Your task to perform on an android device: Set the phone to "Do not disturb". Image 0: 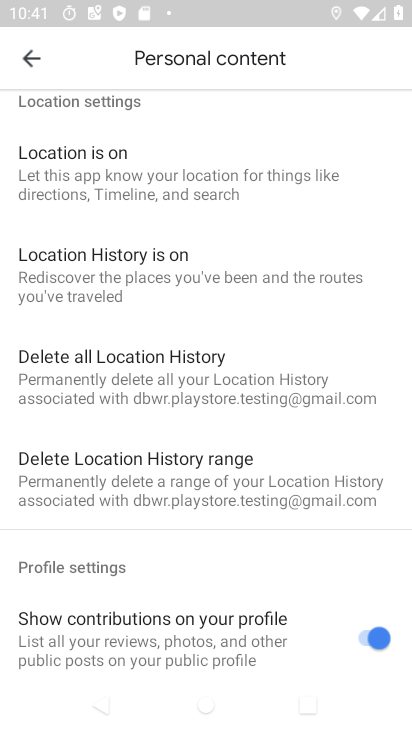
Step 0: drag from (204, 9) to (293, 534)
Your task to perform on an android device: Set the phone to "Do not disturb". Image 1: 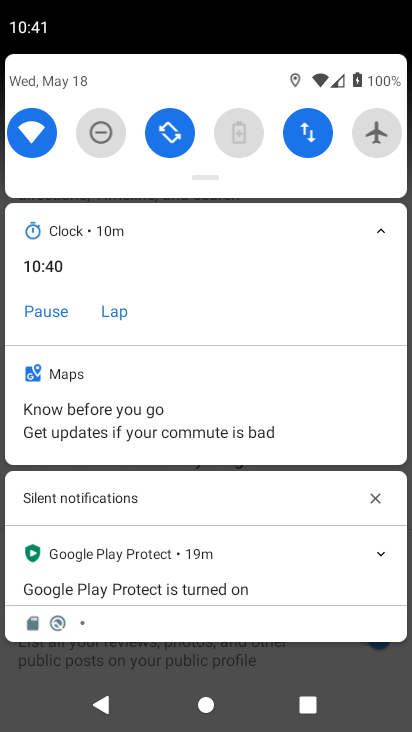
Step 1: click (90, 126)
Your task to perform on an android device: Set the phone to "Do not disturb". Image 2: 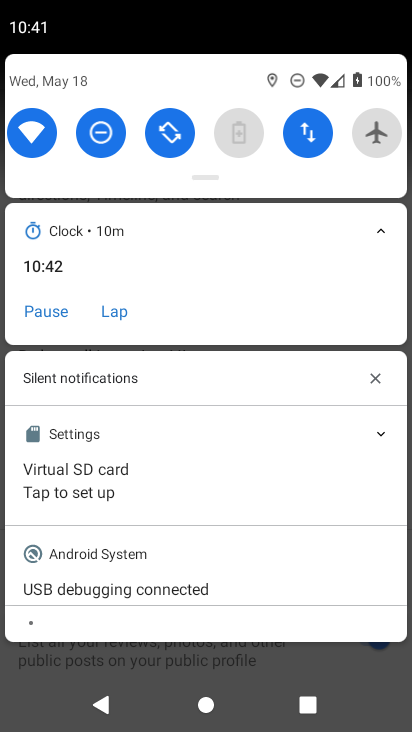
Step 2: task complete